Your task to perform on an android device: move a message to another label in the gmail app Image 0: 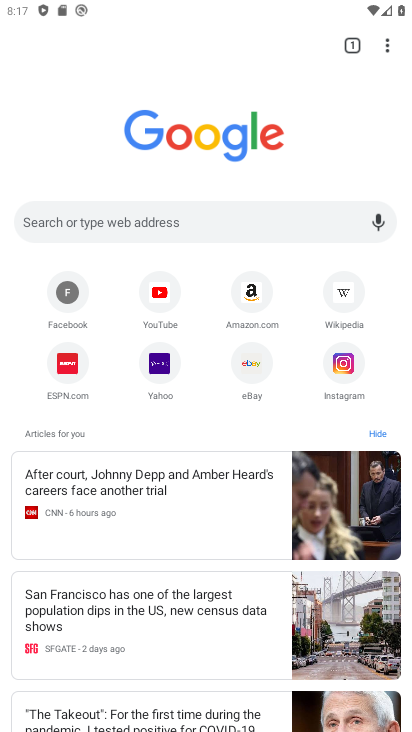
Step 0: press home button
Your task to perform on an android device: move a message to another label in the gmail app Image 1: 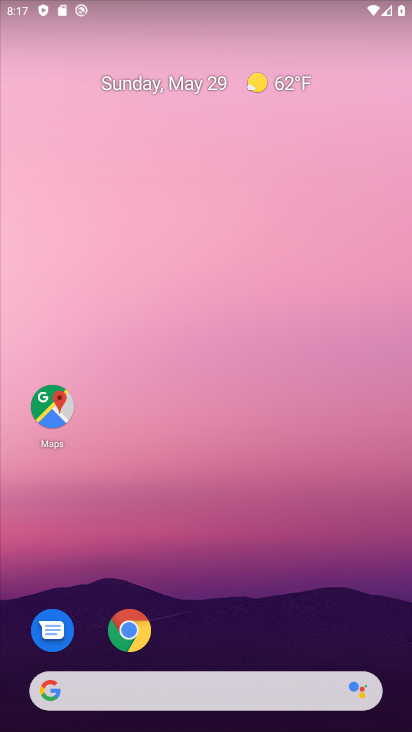
Step 1: drag from (398, 703) to (383, 189)
Your task to perform on an android device: move a message to another label in the gmail app Image 2: 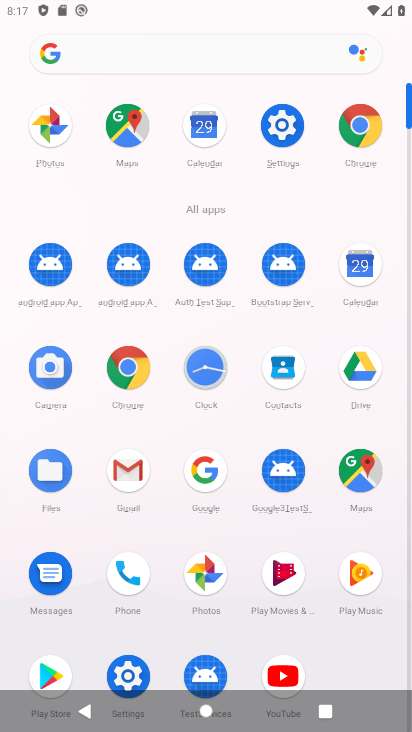
Step 2: click (132, 462)
Your task to perform on an android device: move a message to another label in the gmail app Image 3: 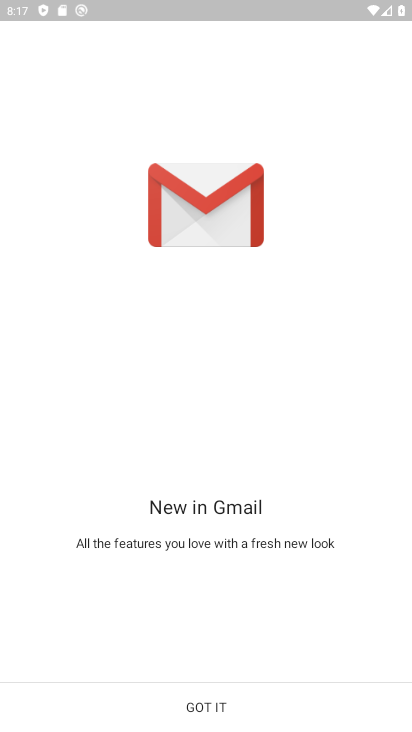
Step 3: click (203, 707)
Your task to perform on an android device: move a message to another label in the gmail app Image 4: 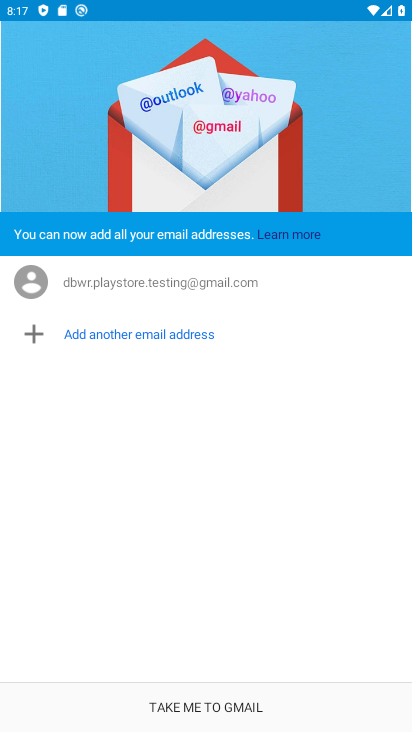
Step 4: click (203, 708)
Your task to perform on an android device: move a message to another label in the gmail app Image 5: 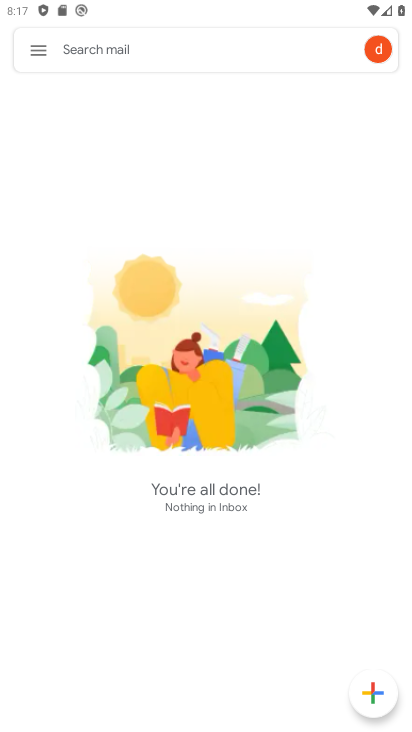
Step 5: click (48, 50)
Your task to perform on an android device: move a message to another label in the gmail app Image 6: 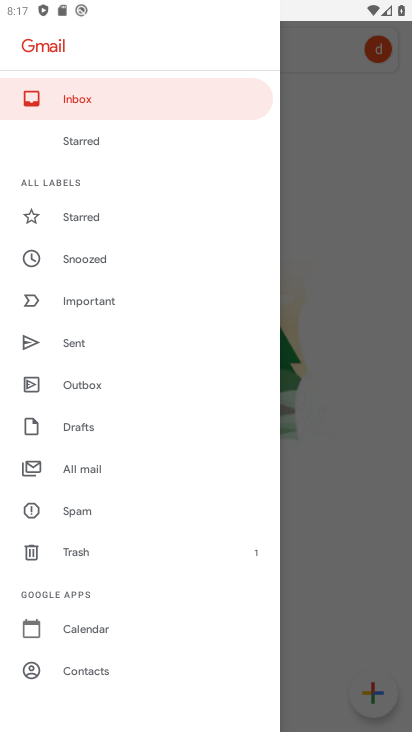
Step 6: click (91, 93)
Your task to perform on an android device: move a message to another label in the gmail app Image 7: 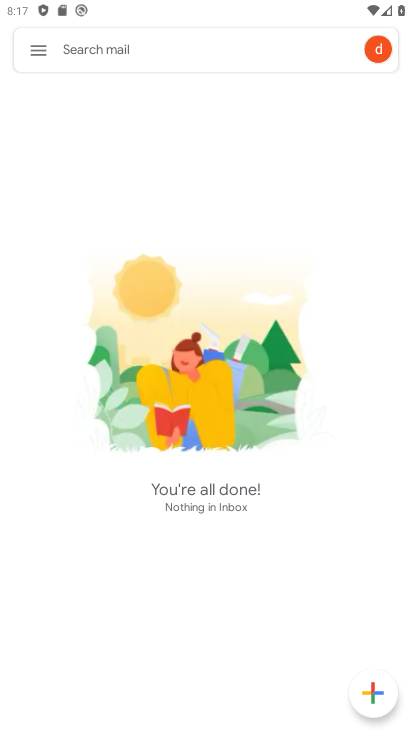
Step 7: task complete